Your task to perform on an android device: Open Google Maps Image 0: 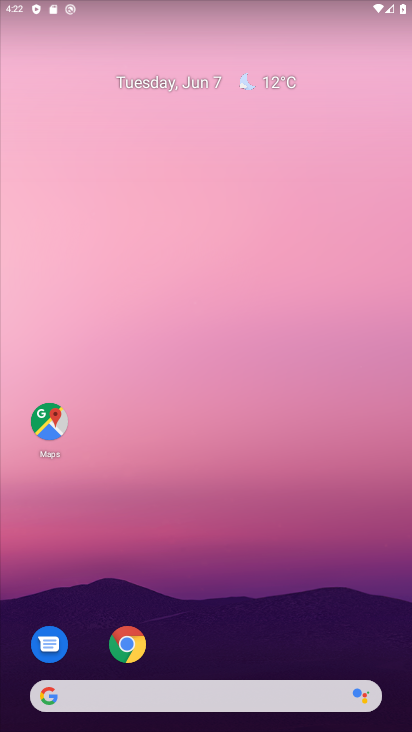
Step 0: click (37, 424)
Your task to perform on an android device: Open Google Maps Image 1: 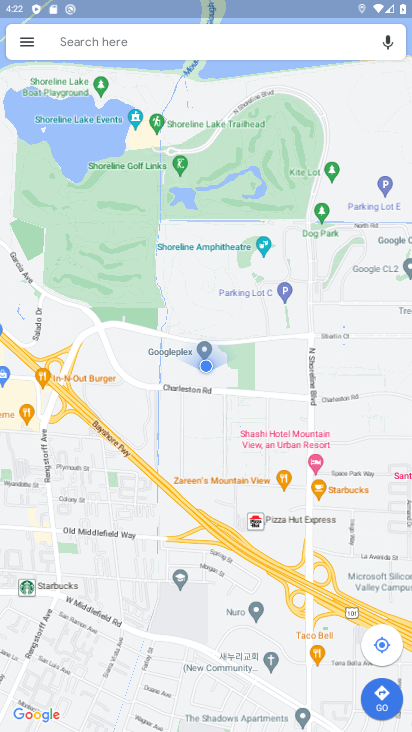
Step 1: task complete